Your task to perform on an android device: Go to privacy settings Image 0: 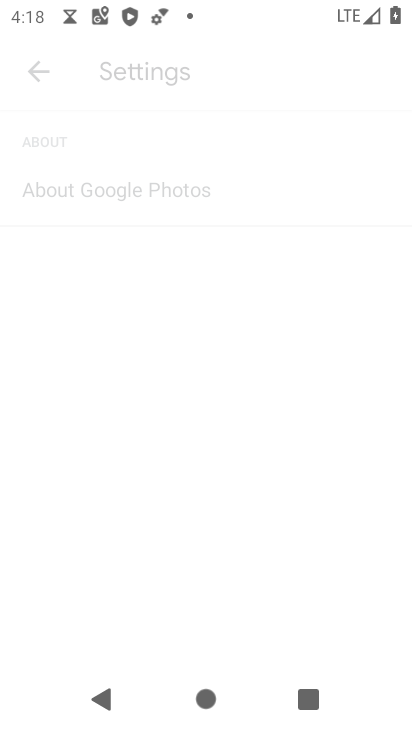
Step 0: drag from (324, 546) to (315, 127)
Your task to perform on an android device: Go to privacy settings Image 1: 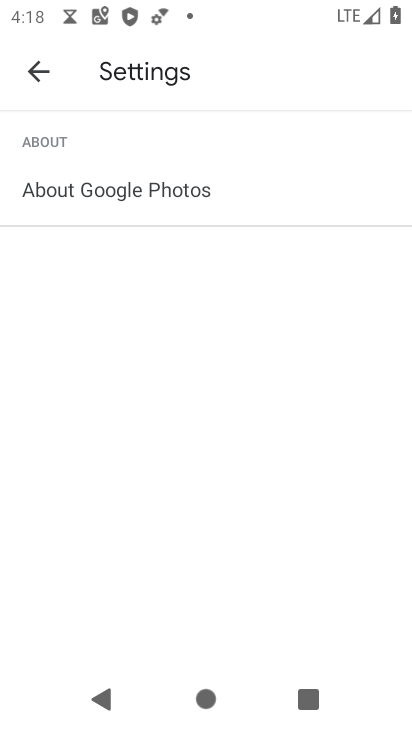
Step 1: press back button
Your task to perform on an android device: Go to privacy settings Image 2: 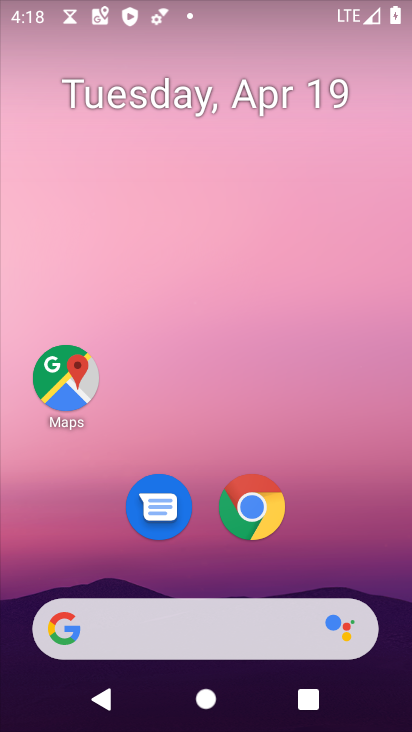
Step 2: click (250, 502)
Your task to perform on an android device: Go to privacy settings Image 3: 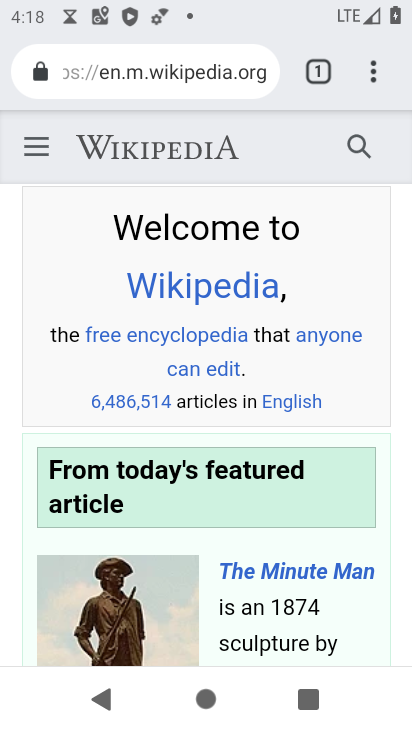
Step 3: click (376, 72)
Your task to perform on an android device: Go to privacy settings Image 4: 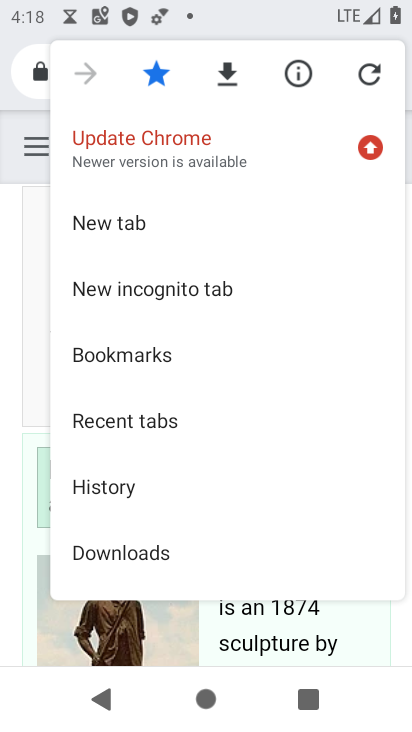
Step 4: drag from (154, 518) to (176, 204)
Your task to perform on an android device: Go to privacy settings Image 5: 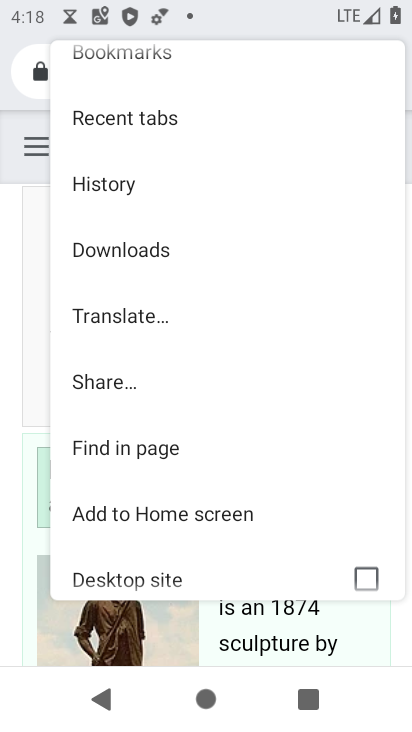
Step 5: drag from (106, 515) to (226, 240)
Your task to perform on an android device: Go to privacy settings Image 6: 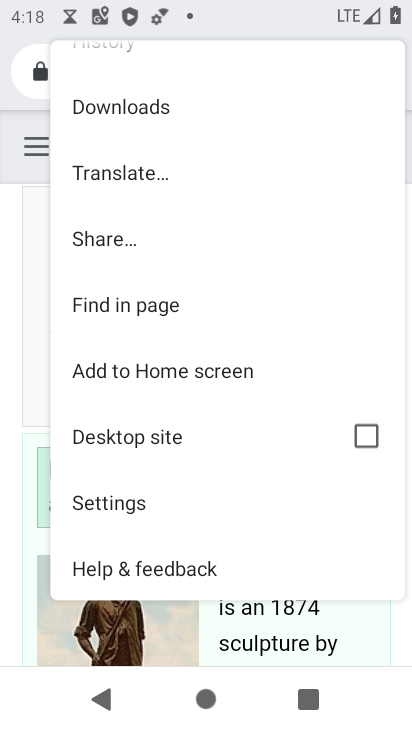
Step 6: click (155, 501)
Your task to perform on an android device: Go to privacy settings Image 7: 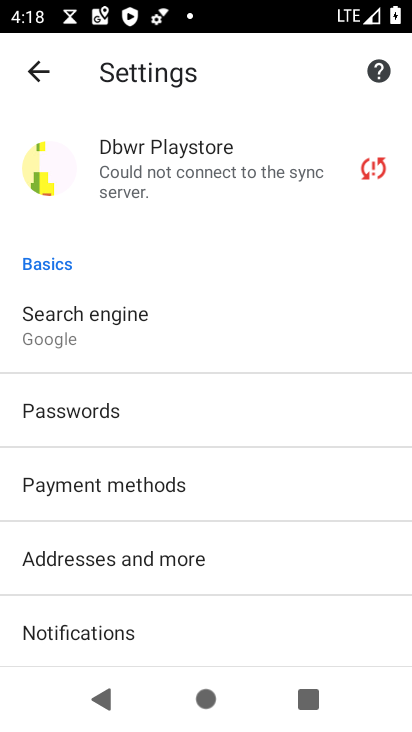
Step 7: drag from (156, 559) to (220, 362)
Your task to perform on an android device: Go to privacy settings Image 8: 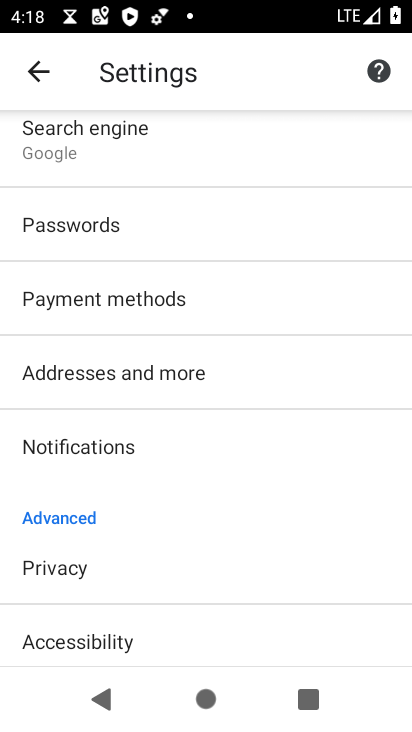
Step 8: click (221, 570)
Your task to perform on an android device: Go to privacy settings Image 9: 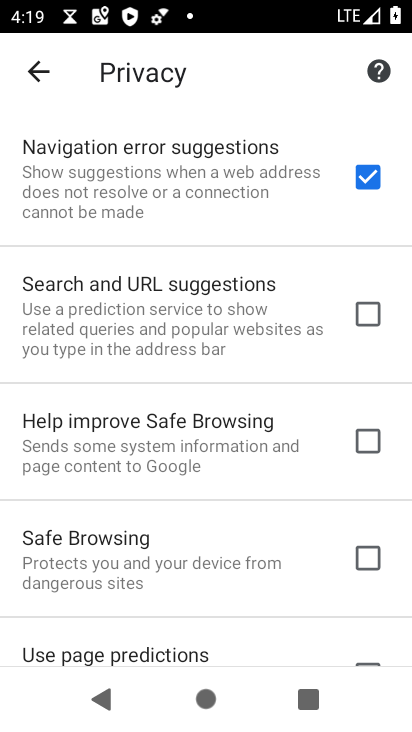
Step 9: task complete